Your task to perform on an android device: install app "YouTube Kids" Image 0: 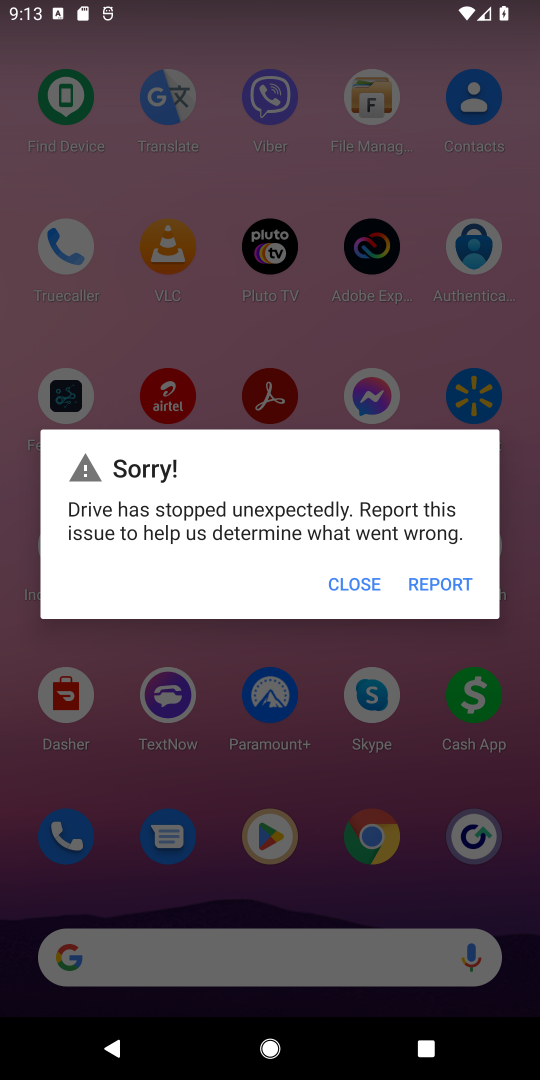
Step 0: press home button
Your task to perform on an android device: install app "YouTube Kids" Image 1: 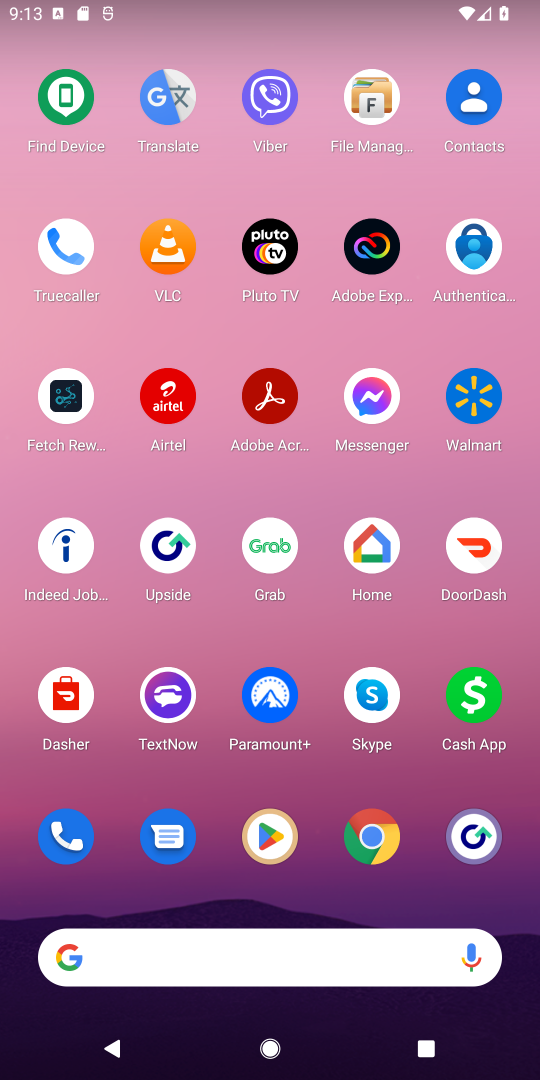
Step 1: press home button
Your task to perform on an android device: install app "YouTube Kids" Image 2: 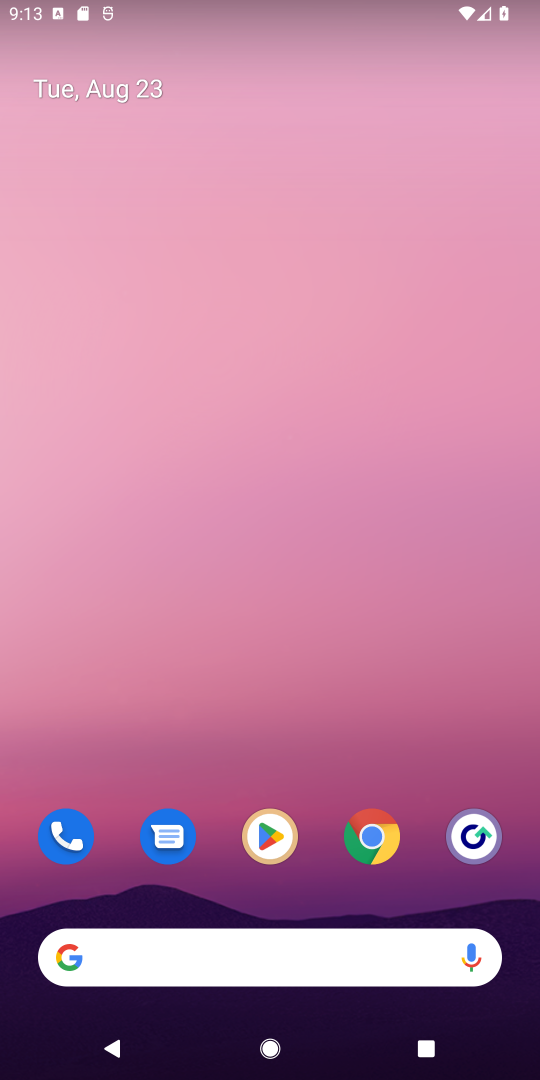
Step 2: click (260, 840)
Your task to perform on an android device: install app "YouTube Kids" Image 3: 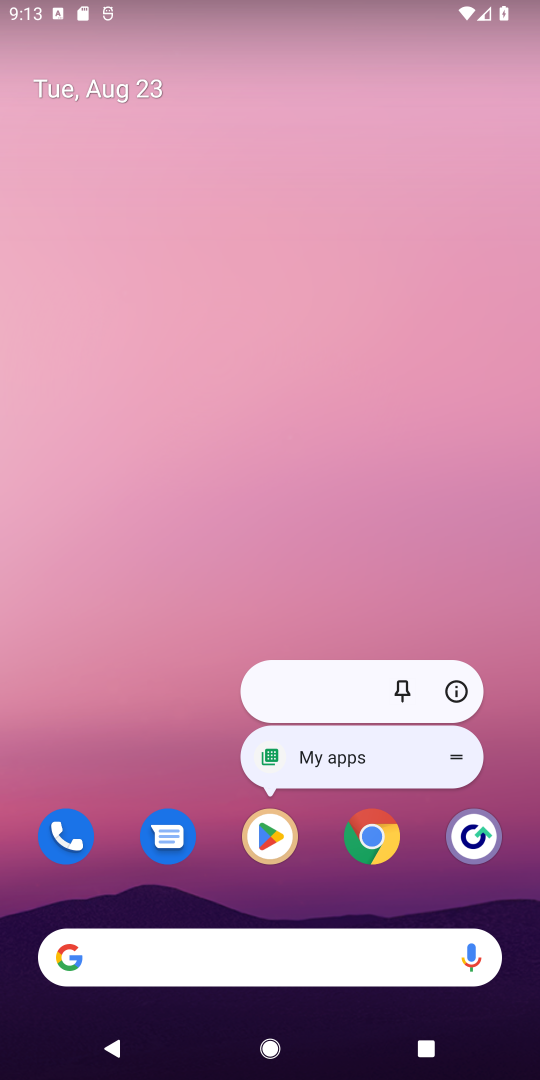
Step 3: click (260, 840)
Your task to perform on an android device: install app "YouTube Kids" Image 4: 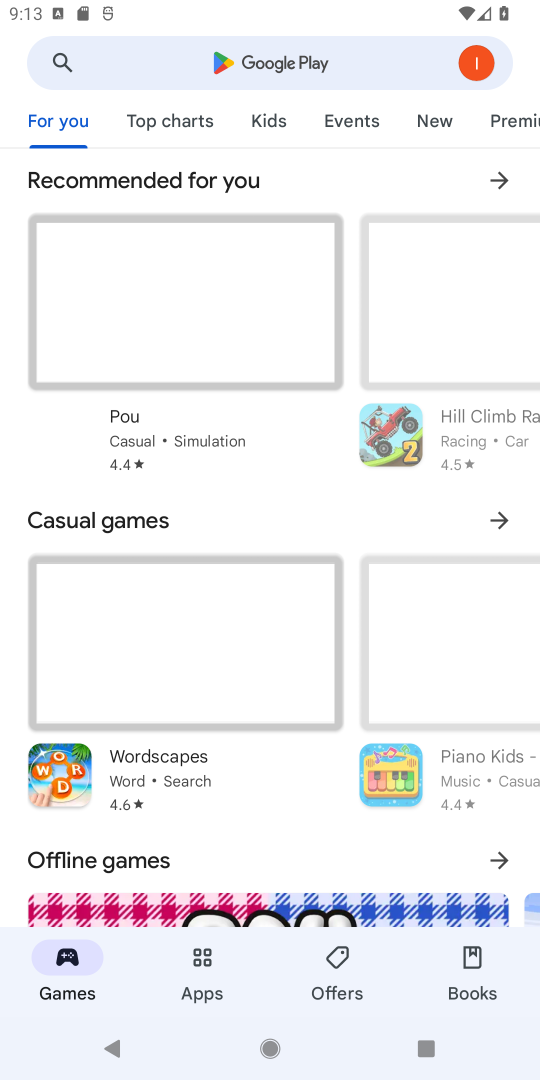
Step 4: click (330, 68)
Your task to perform on an android device: install app "YouTube Kids" Image 5: 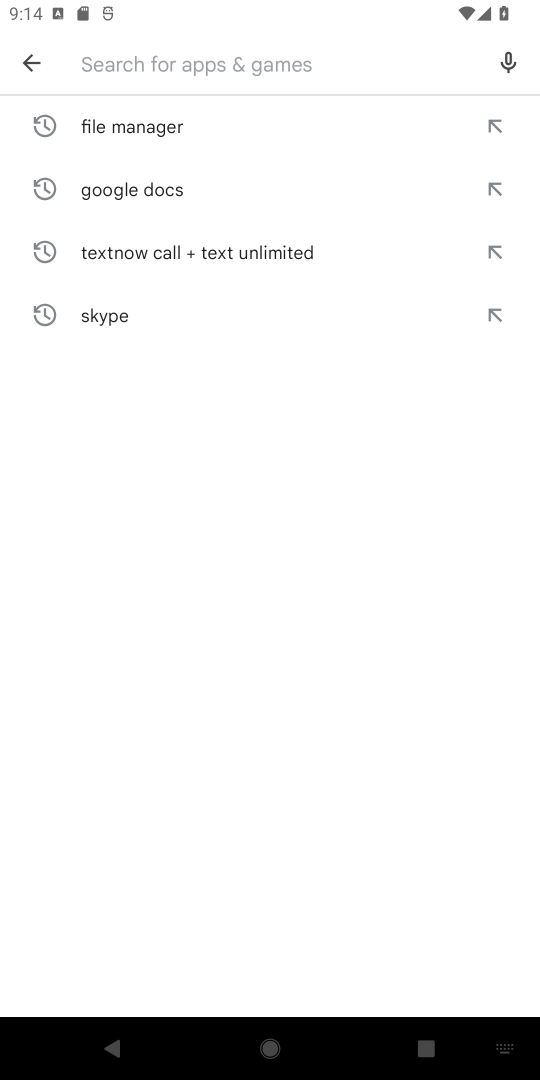
Step 5: type "YouTube Kids"
Your task to perform on an android device: install app "YouTube Kids" Image 6: 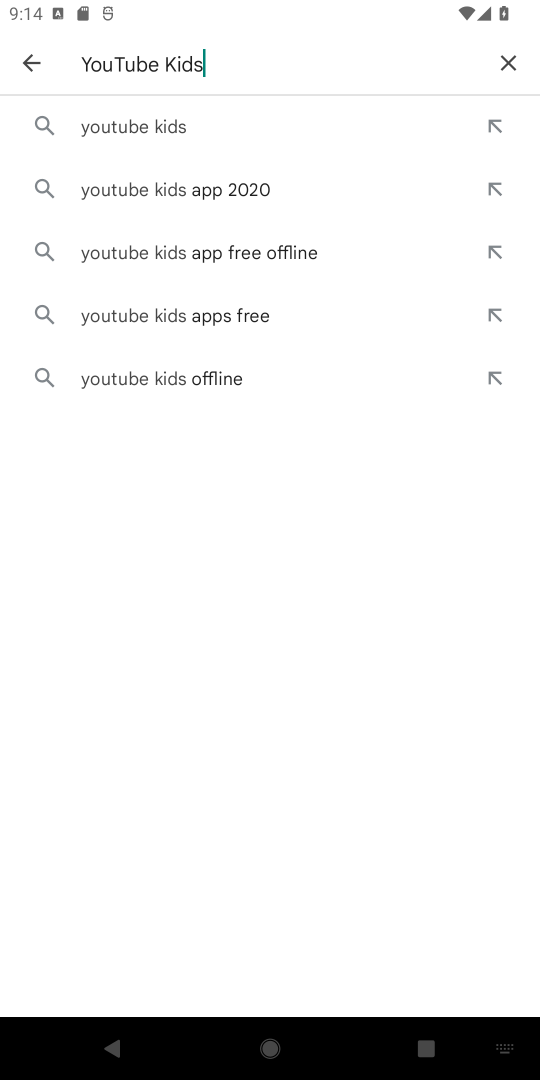
Step 6: click (147, 131)
Your task to perform on an android device: install app "YouTube Kids" Image 7: 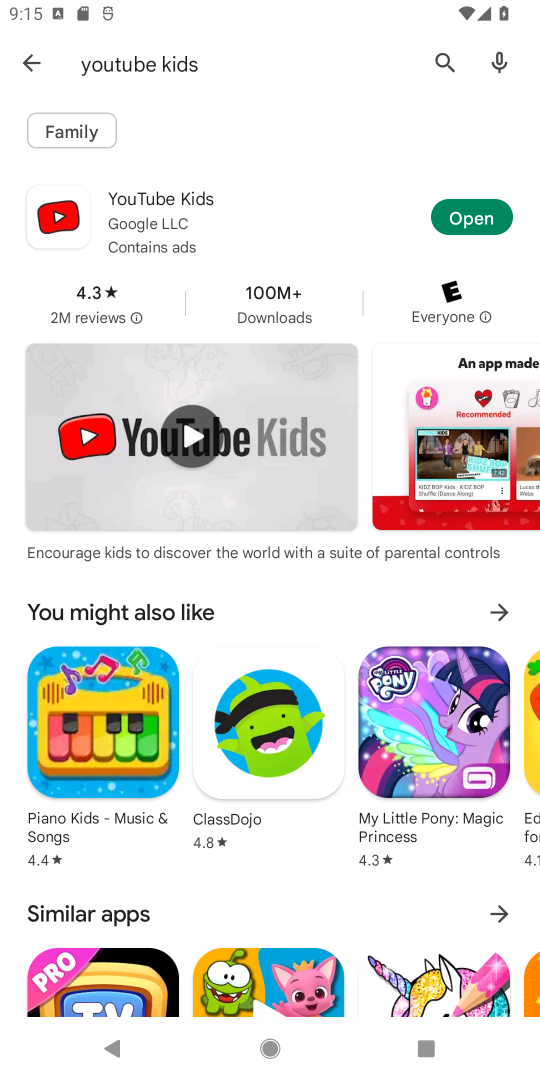
Step 7: task complete